Your task to perform on an android device: open app "Nova Launcher" Image 0: 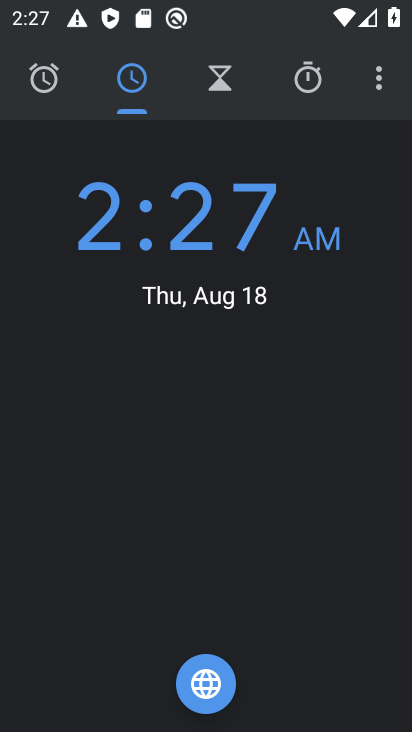
Step 0: press home button
Your task to perform on an android device: open app "Nova Launcher" Image 1: 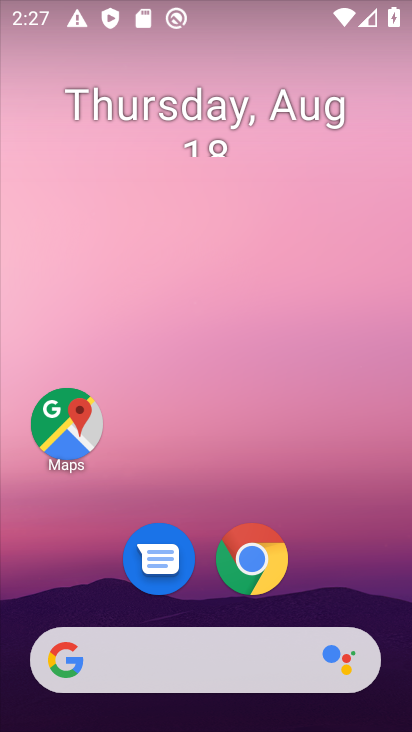
Step 1: drag from (195, 578) to (275, 104)
Your task to perform on an android device: open app "Nova Launcher" Image 2: 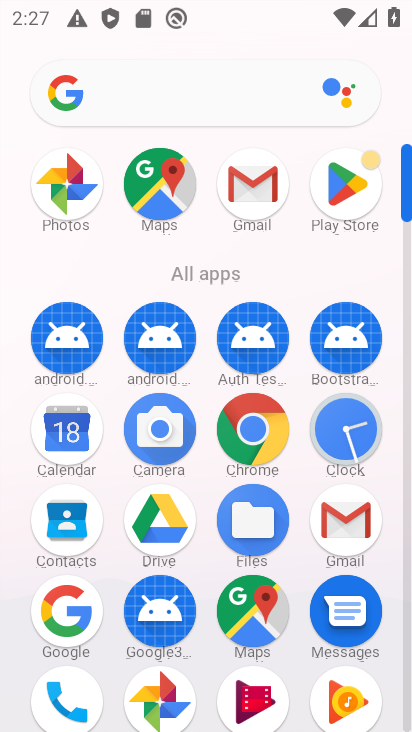
Step 2: click (349, 179)
Your task to perform on an android device: open app "Nova Launcher" Image 3: 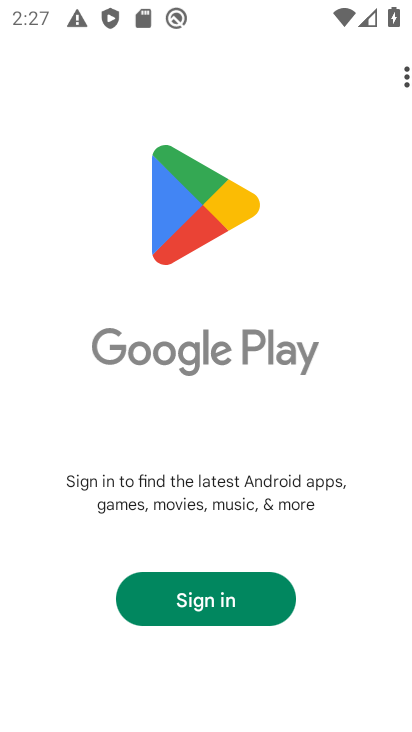
Step 3: click (231, 601)
Your task to perform on an android device: open app "Nova Launcher" Image 4: 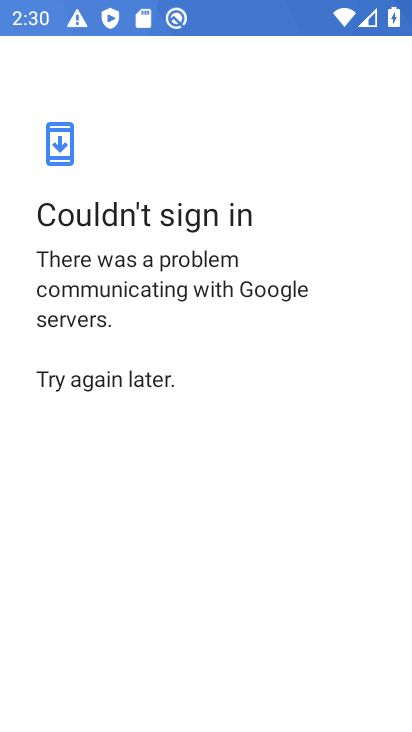
Step 4: task complete